Your task to perform on an android device: Open Amazon Image 0: 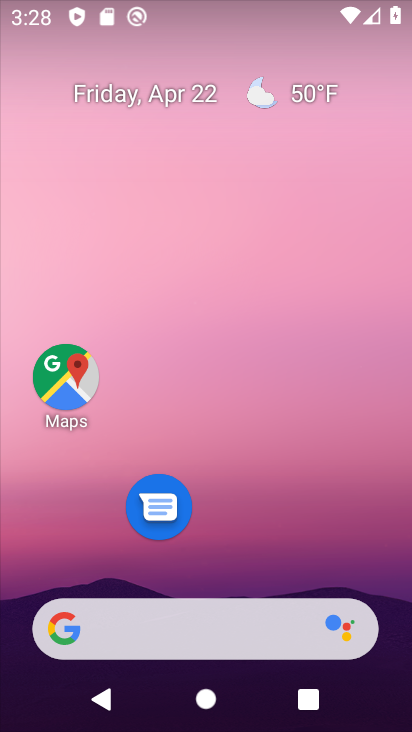
Step 0: drag from (183, 546) to (282, 173)
Your task to perform on an android device: Open Amazon Image 1: 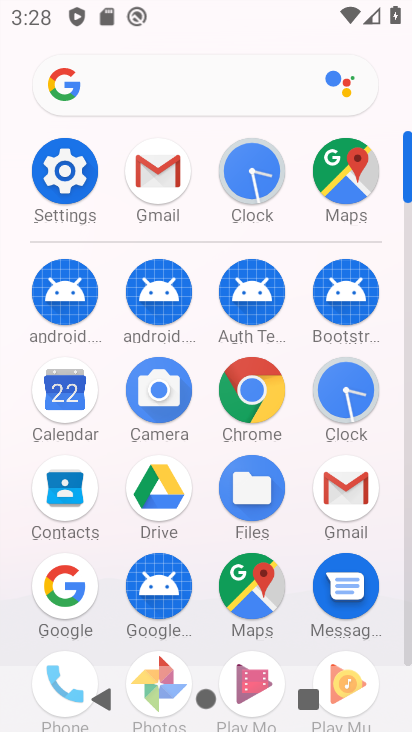
Step 1: click (250, 374)
Your task to perform on an android device: Open Amazon Image 2: 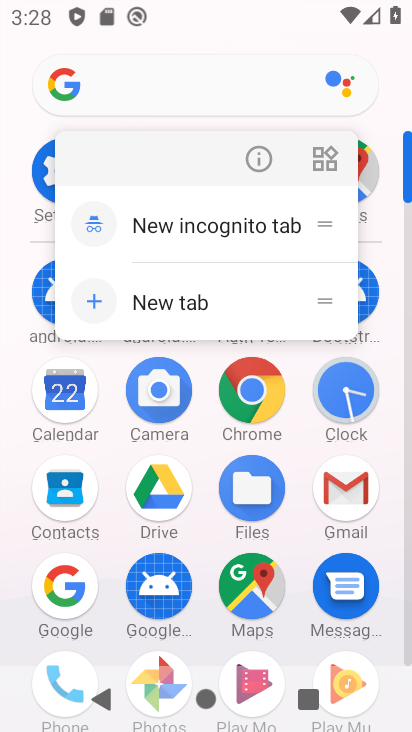
Step 2: click (253, 390)
Your task to perform on an android device: Open Amazon Image 3: 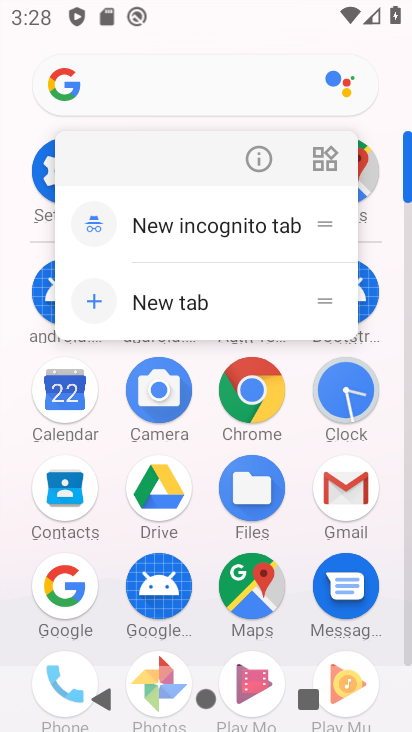
Step 3: click (253, 390)
Your task to perform on an android device: Open Amazon Image 4: 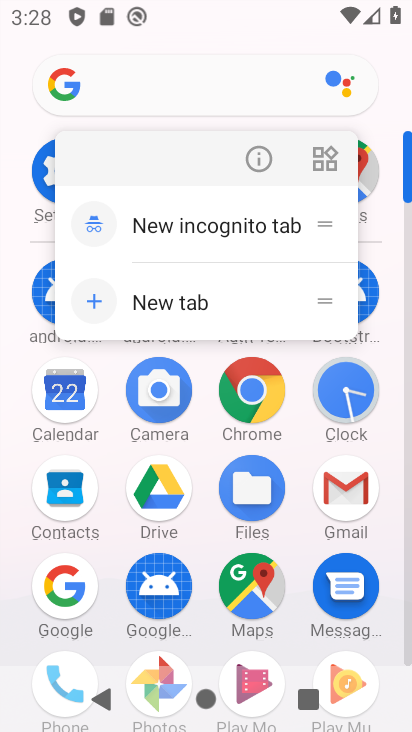
Step 4: click (253, 390)
Your task to perform on an android device: Open Amazon Image 5: 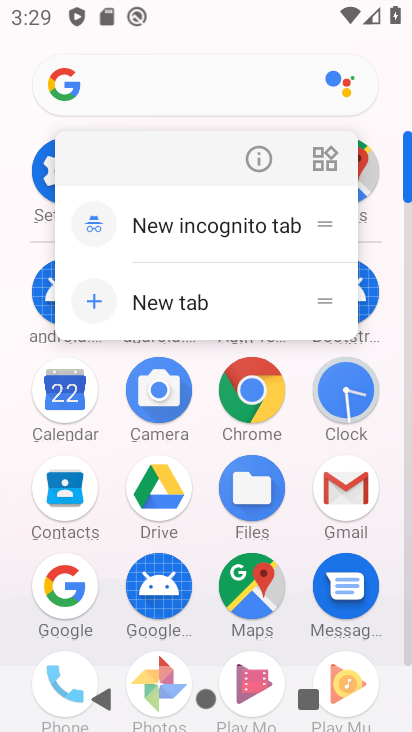
Step 5: click (253, 390)
Your task to perform on an android device: Open Amazon Image 6: 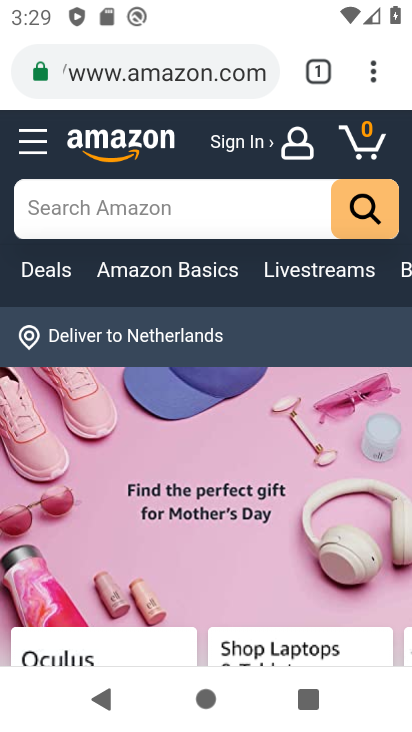
Step 6: task complete